Your task to perform on an android device: set default search engine in the chrome app Image 0: 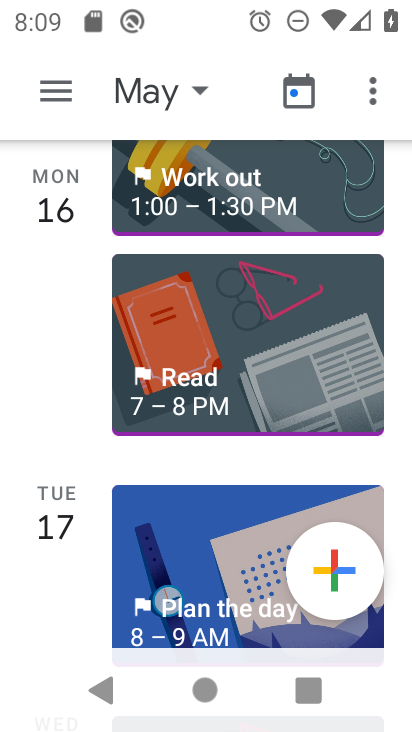
Step 0: press home button
Your task to perform on an android device: set default search engine in the chrome app Image 1: 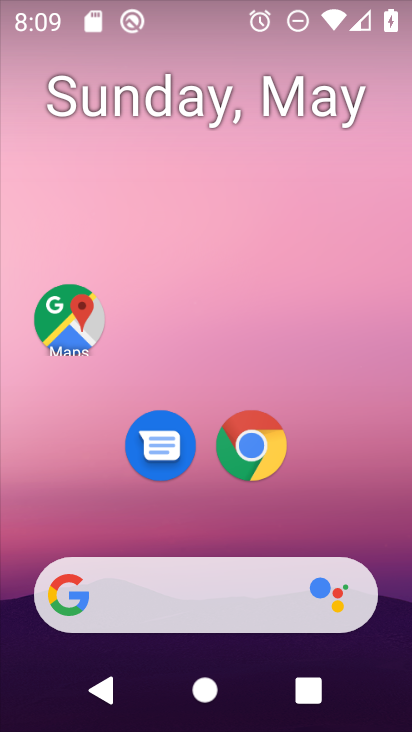
Step 1: drag from (308, 578) to (301, 53)
Your task to perform on an android device: set default search engine in the chrome app Image 2: 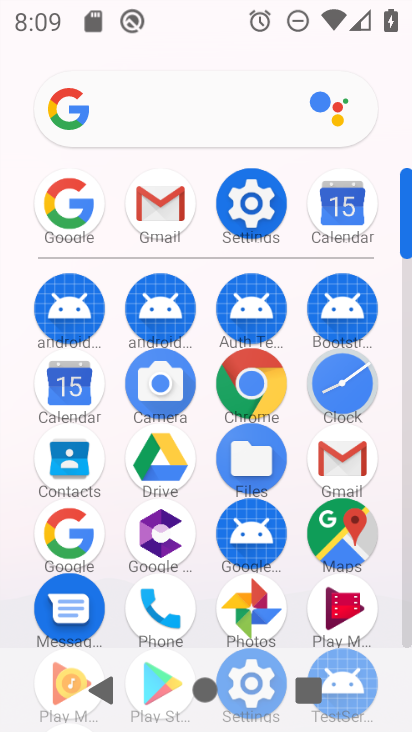
Step 2: click (272, 396)
Your task to perform on an android device: set default search engine in the chrome app Image 3: 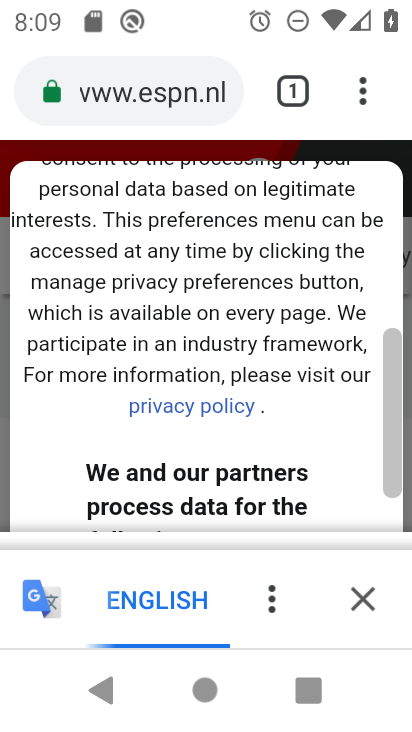
Step 3: click (381, 104)
Your task to perform on an android device: set default search engine in the chrome app Image 4: 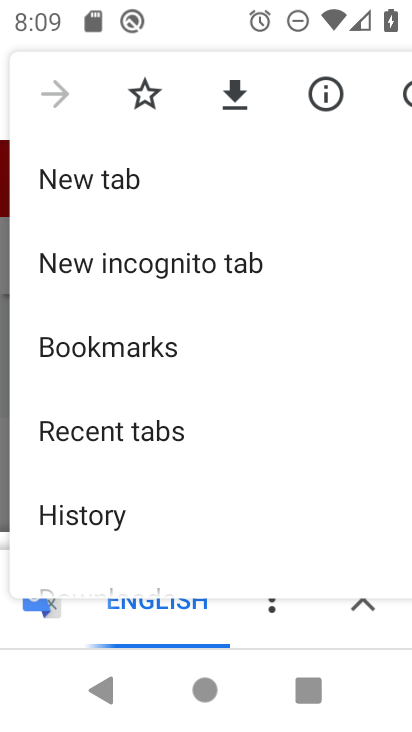
Step 4: drag from (144, 479) to (176, 6)
Your task to perform on an android device: set default search engine in the chrome app Image 5: 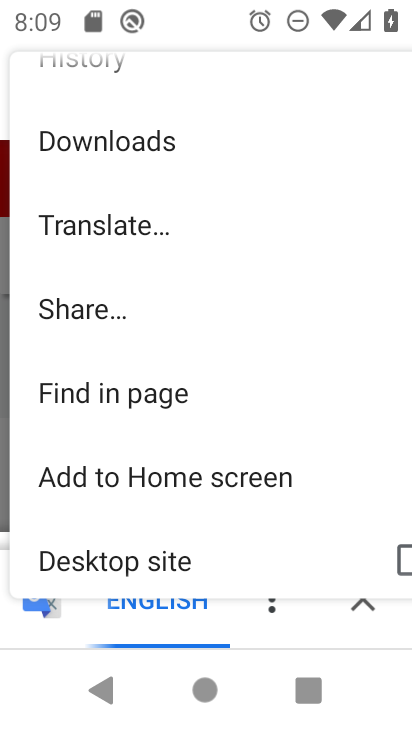
Step 5: drag from (171, 494) to (172, 176)
Your task to perform on an android device: set default search engine in the chrome app Image 6: 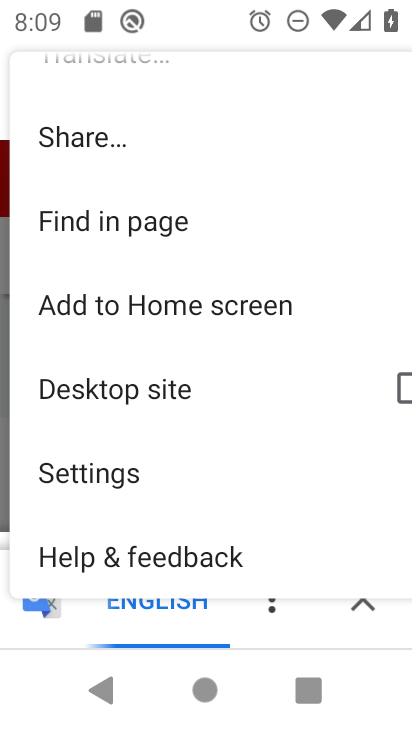
Step 6: click (163, 478)
Your task to perform on an android device: set default search engine in the chrome app Image 7: 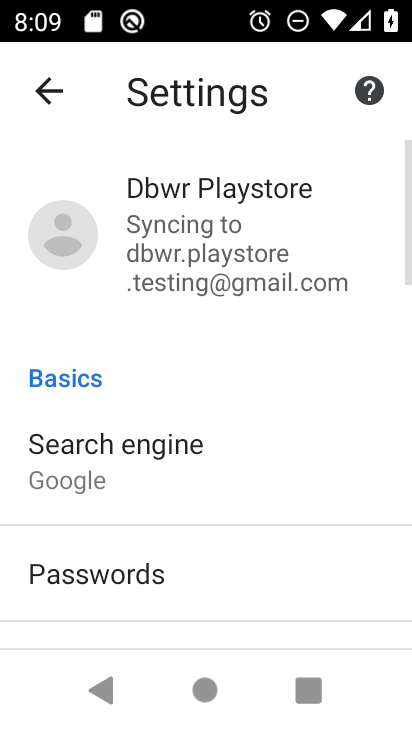
Step 7: drag from (168, 493) to (201, 243)
Your task to perform on an android device: set default search engine in the chrome app Image 8: 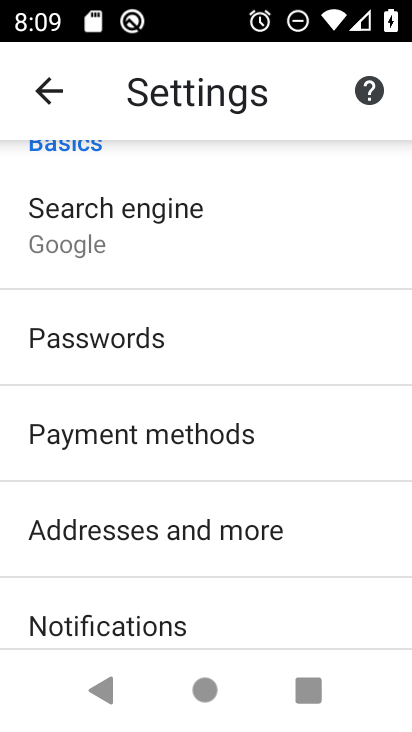
Step 8: click (197, 211)
Your task to perform on an android device: set default search engine in the chrome app Image 9: 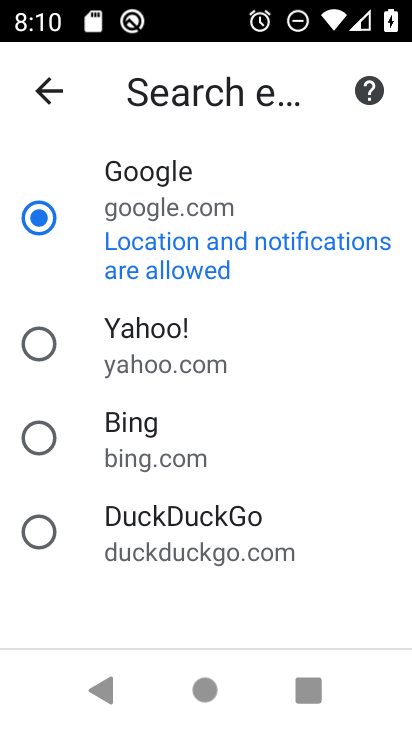
Step 9: task complete